Your task to perform on an android device: Open privacy settings Image 0: 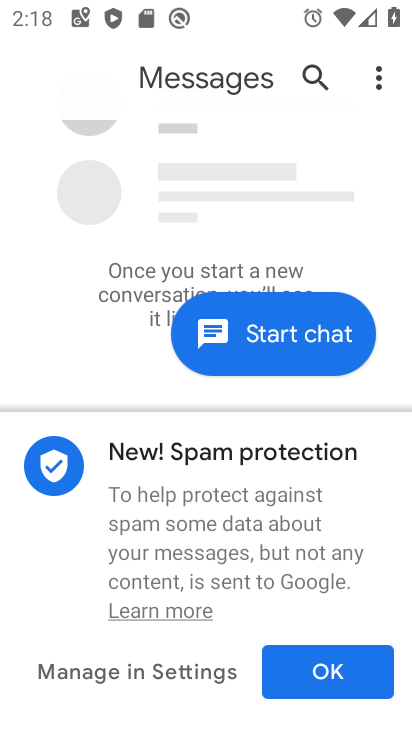
Step 0: press home button
Your task to perform on an android device: Open privacy settings Image 1: 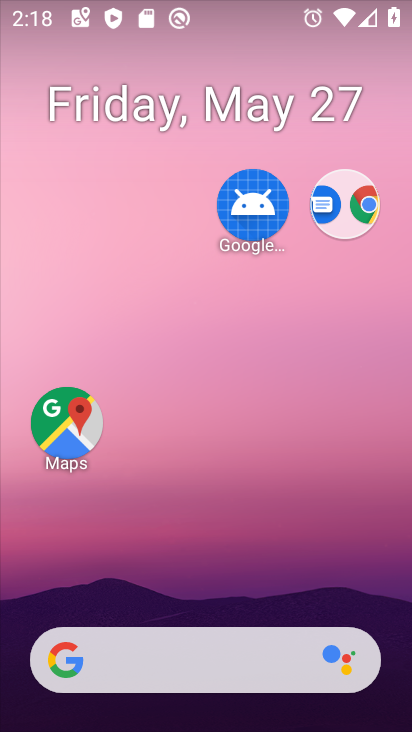
Step 1: drag from (208, 659) to (273, 186)
Your task to perform on an android device: Open privacy settings Image 2: 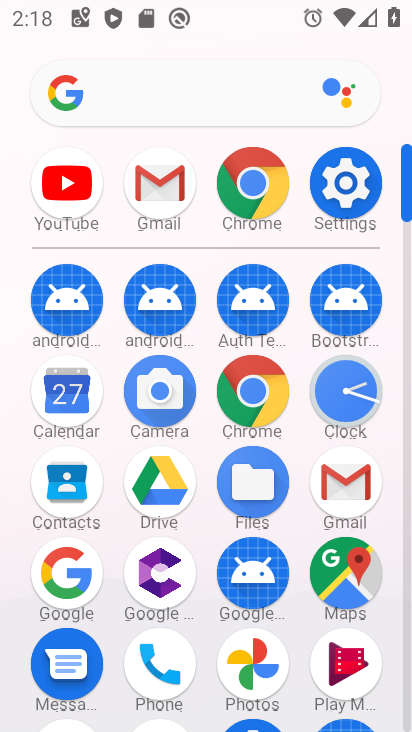
Step 2: click (338, 205)
Your task to perform on an android device: Open privacy settings Image 3: 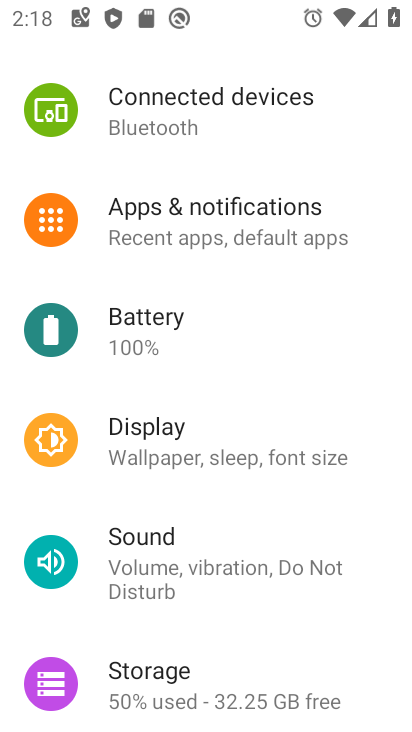
Step 3: drag from (285, 217) to (273, 373)
Your task to perform on an android device: Open privacy settings Image 4: 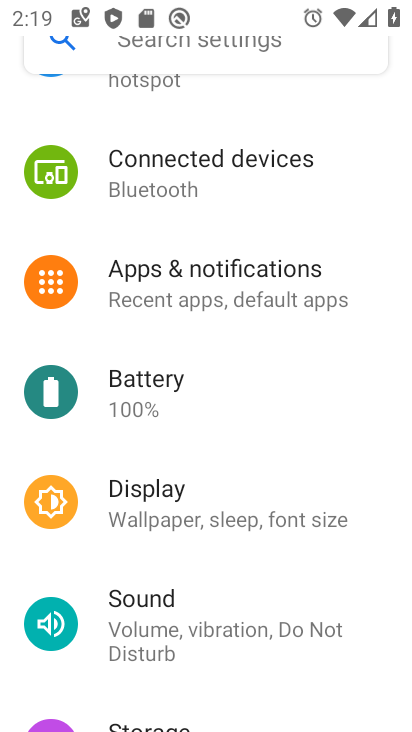
Step 4: drag from (281, 228) to (293, 183)
Your task to perform on an android device: Open privacy settings Image 5: 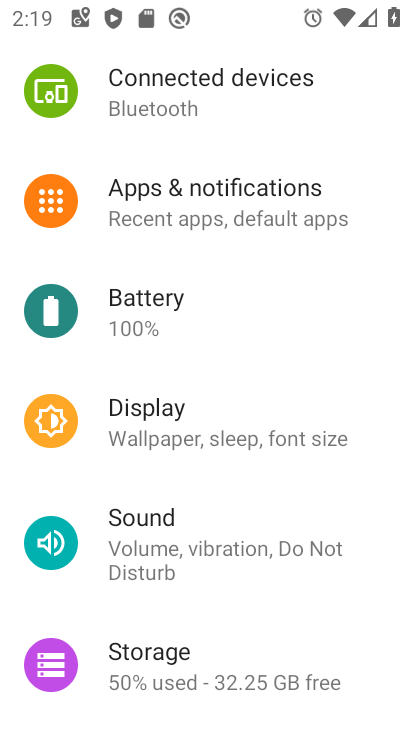
Step 5: drag from (253, 483) to (263, 395)
Your task to perform on an android device: Open privacy settings Image 6: 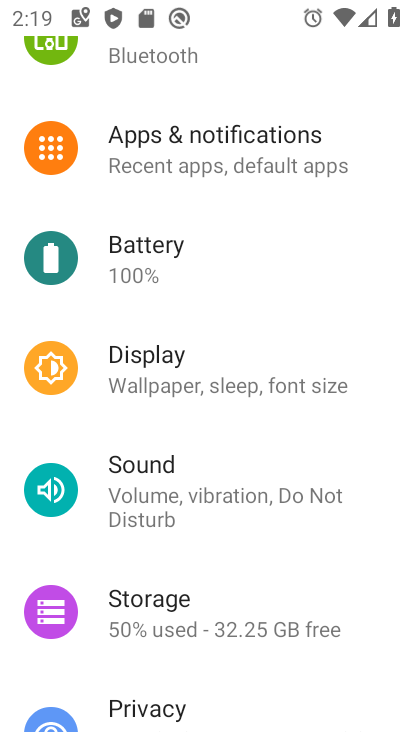
Step 6: drag from (240, 557) to (242, 455)
Your task to perform on an android device: Open privacy settings Image 7: 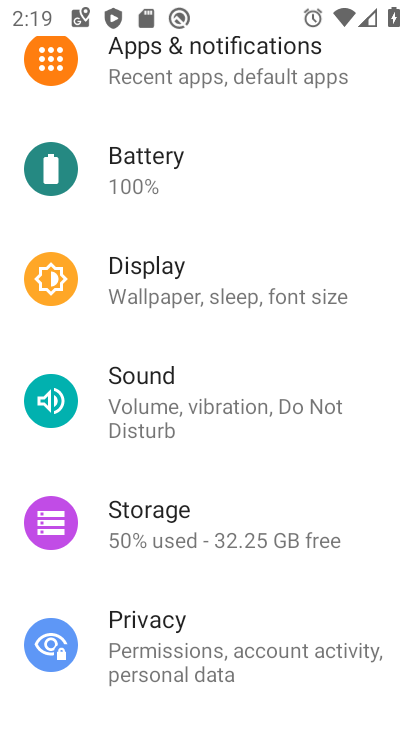
Step 7: drag from (231, 563) to (236, 482)
Your task to perform on an android device: Open privacy settings Image 8: 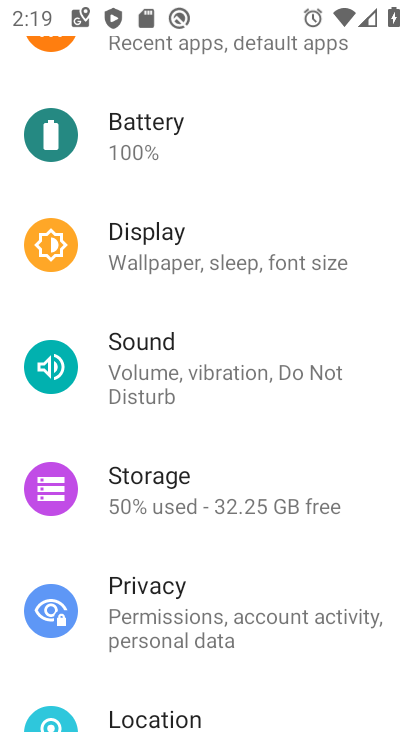
Step 8: click (235, 588)
Your task to perform on an android device: Open privacy settings Image 9: 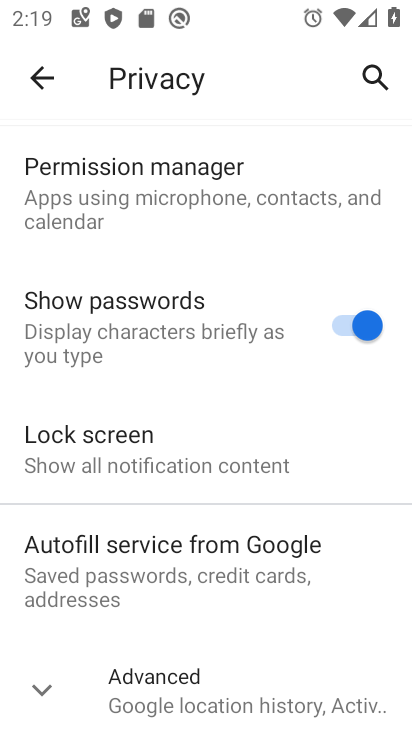
Step 9: task complete